Your task to perform on an android device: read, delete, or share a saved page in the chrome app Image 0: 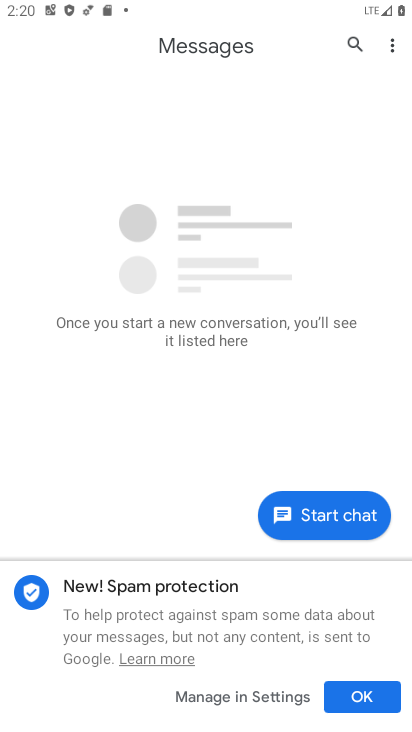
Step 0: press home button
Your task to perform on an android device: read, delete, or share a saved page in the chrome app Image 1: 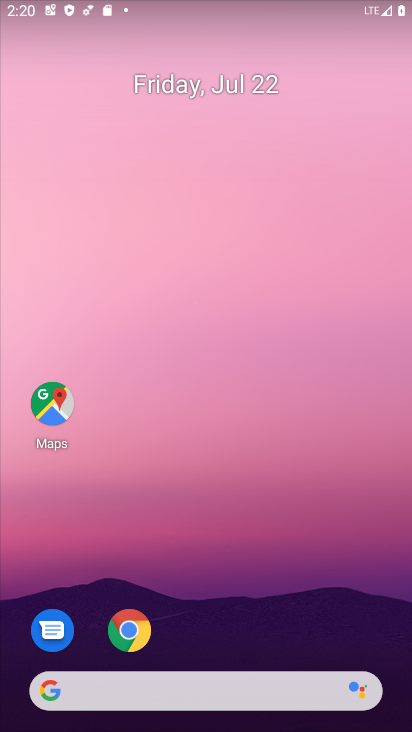
Step 1: drag from (204, 654) to (155, 55)
Your task to perform on an android device: read, delete, or share a saved page in the chrome app Image 2: 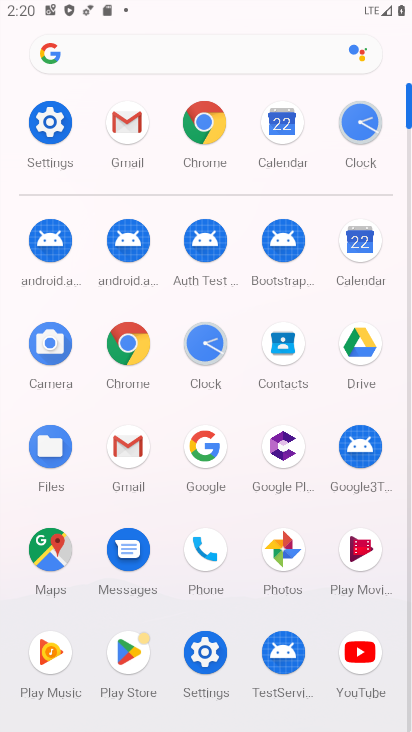
Step 2: click (124, 334)
Your task to perform on an android device: read, delete, or share a saved page in the chrome app Image 3: 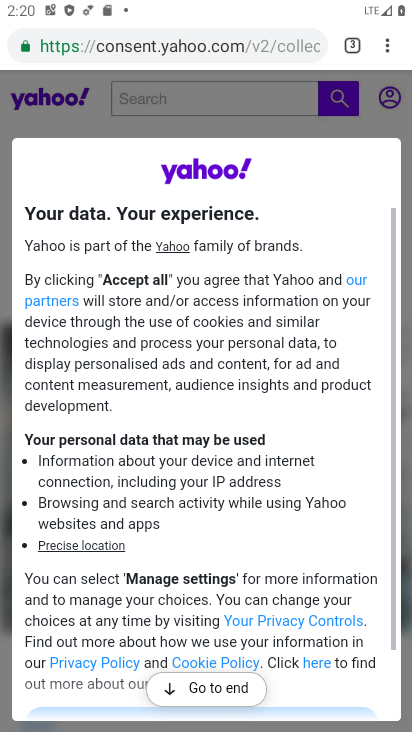
Step 3: click (376, 50)
Your task to perform on an android device: read, delete, or share a saved page in the chrome app Image 4: 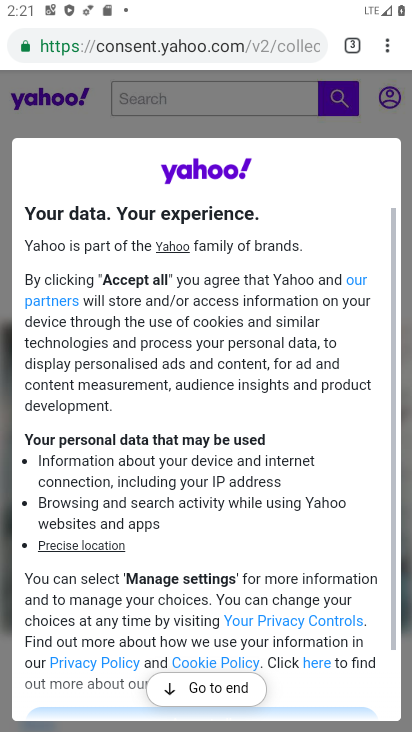
Step 4: click (397, 53)
Your task to perform on an android device: read, delete, or share a saved page in the chrome app Image 5: 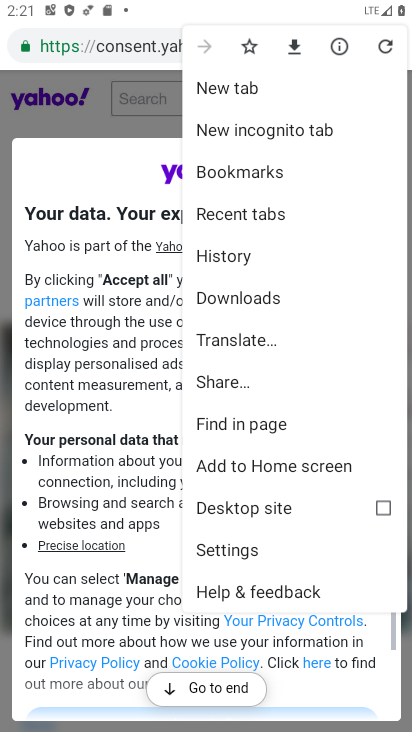
Step 5: click (241, 249)
Your task to perform on an android device: read, delete, or share a saved page in the chrome app Image 6: 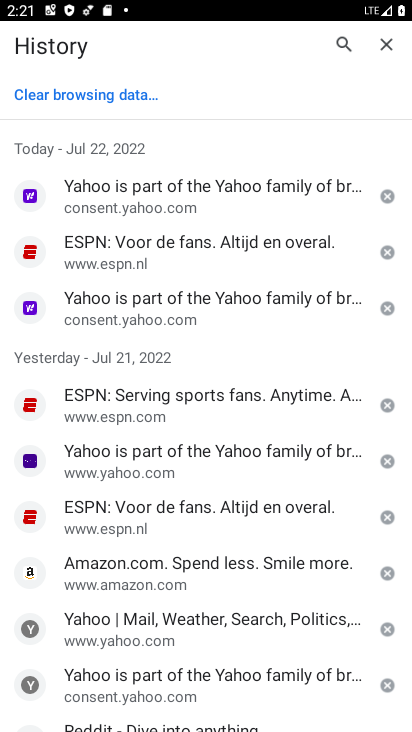
Step 6: click (94, 94)
Your task to perform on an android device: read, delete, or share a saved page in the chrome app Image 7: 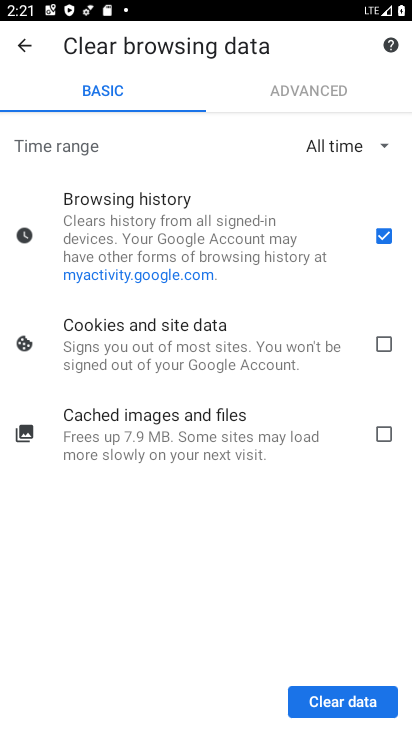
Step 7: task complete